Your task to perform on an android device: change the clock style Image 0: 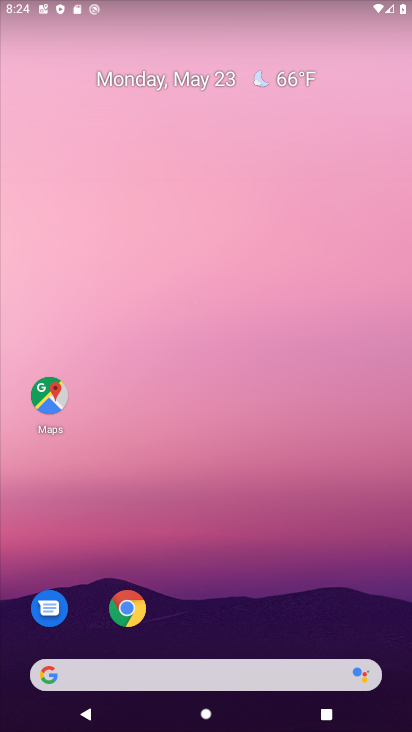
Step 0: drag from (247, 610) to (247, 114)
Your task to perform on an android device: change the clock style Image 1: 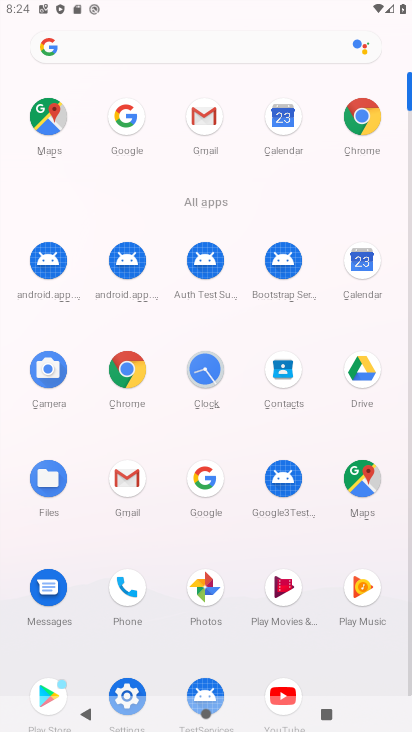
Step 1: click (204, 370)
Your task to perform on an android device: change the clock style Image 2: 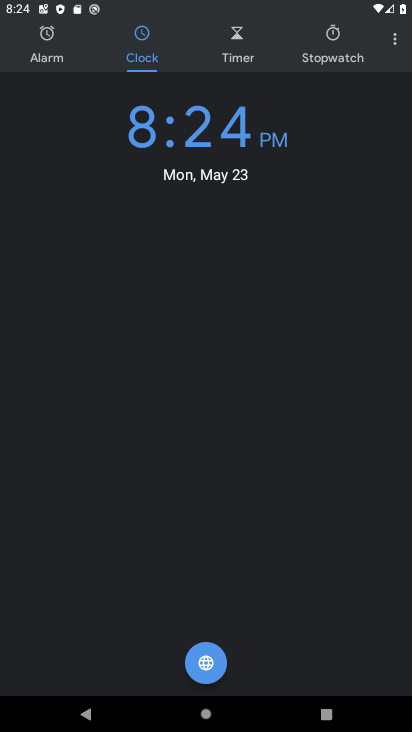
Step 2: click (395, 41)
Your task to perform on an android device: change the clock style Image 3: 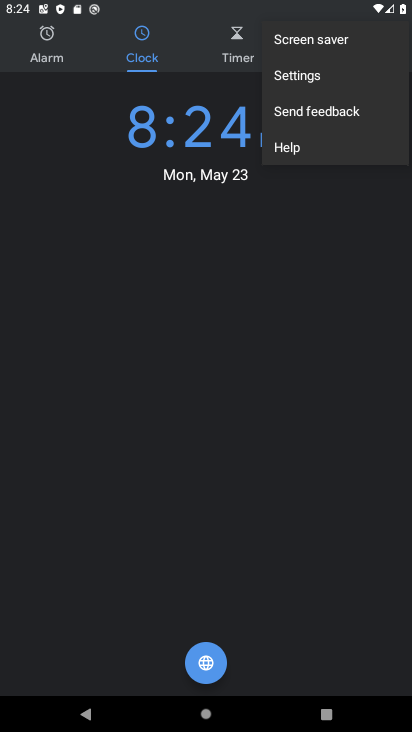
Step 3: click (297, 80)
Your task to perform on an android device: change the clock style Image 4: 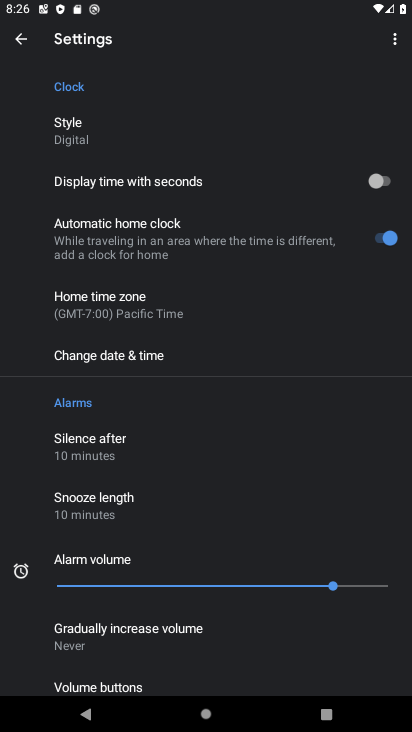
Step 4: click (74, 136)
Your task to perform on an android device: change the clock style Image 5: 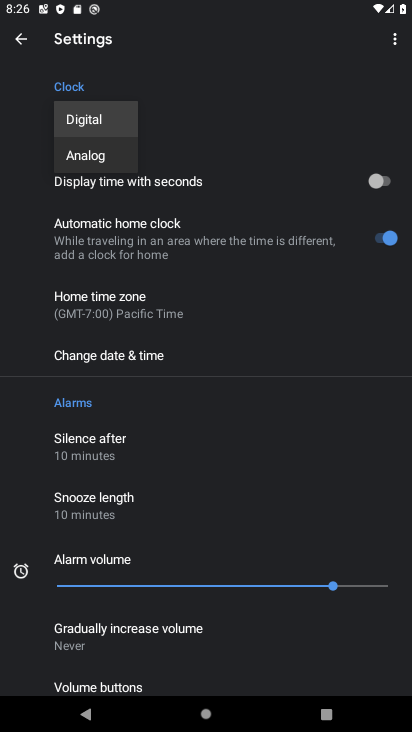
Step 5: click (83, 157)
Your task to perform on an android device: change the clock style Image 6: 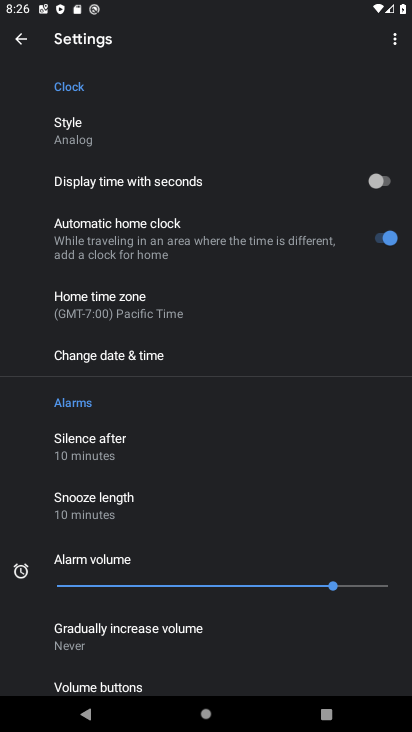
Step 6: task complete